Your task to perform on an android device: install app "Gmail" Image 0: 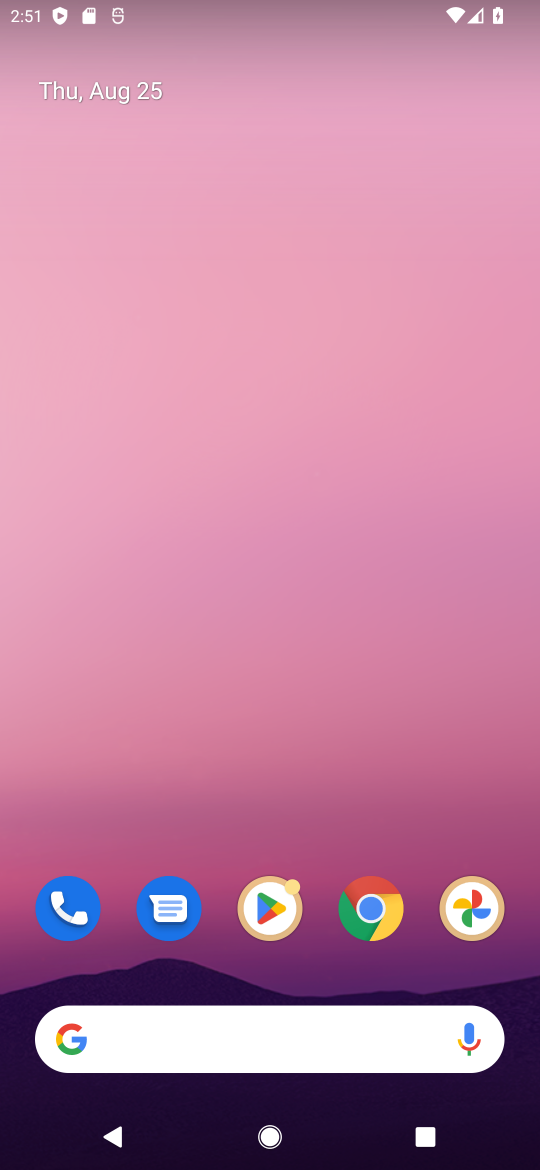
Step 0: click (258, 895)
Your task to perform on an android device: install app "Gmail" Image 1: 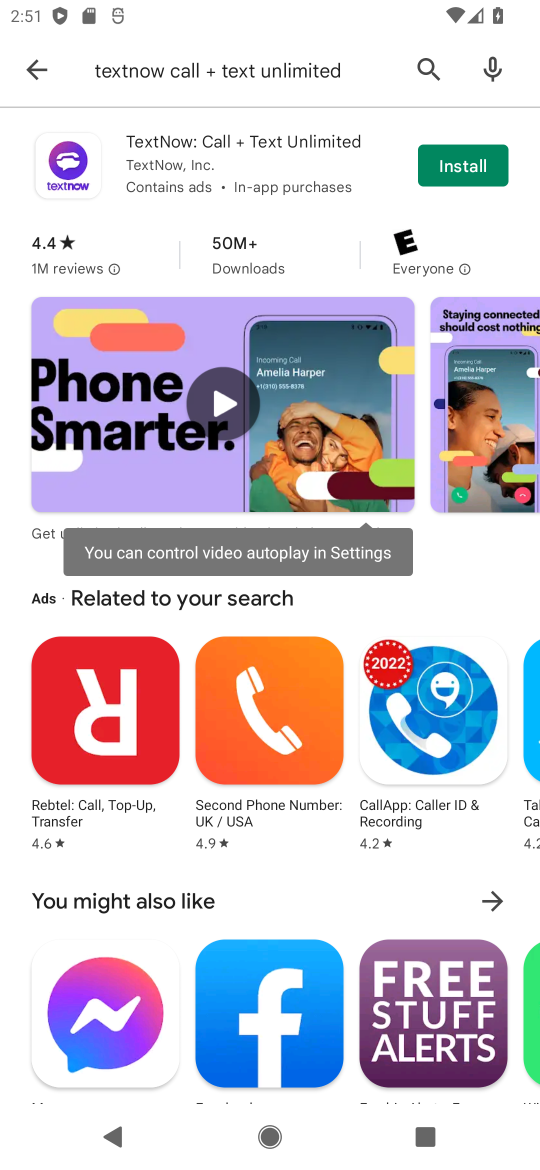
Step 1: click (437, 62)
Your task to perform on an android device: install app "Gmail" Image 2: 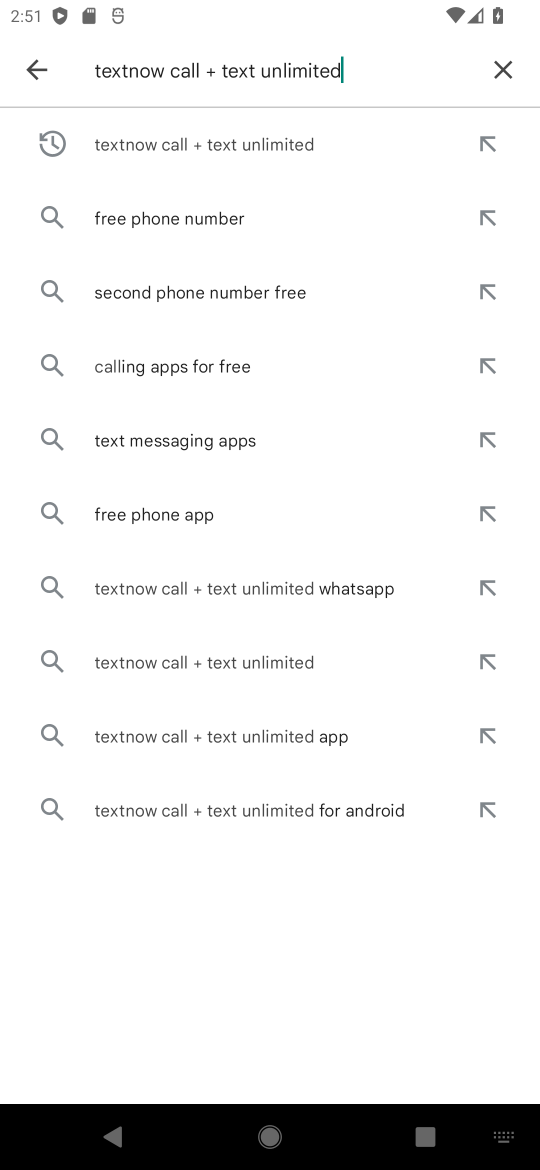
Step 2: click (505, 62)
Your task to perform on an android device: install app "Gmail" Image 3: 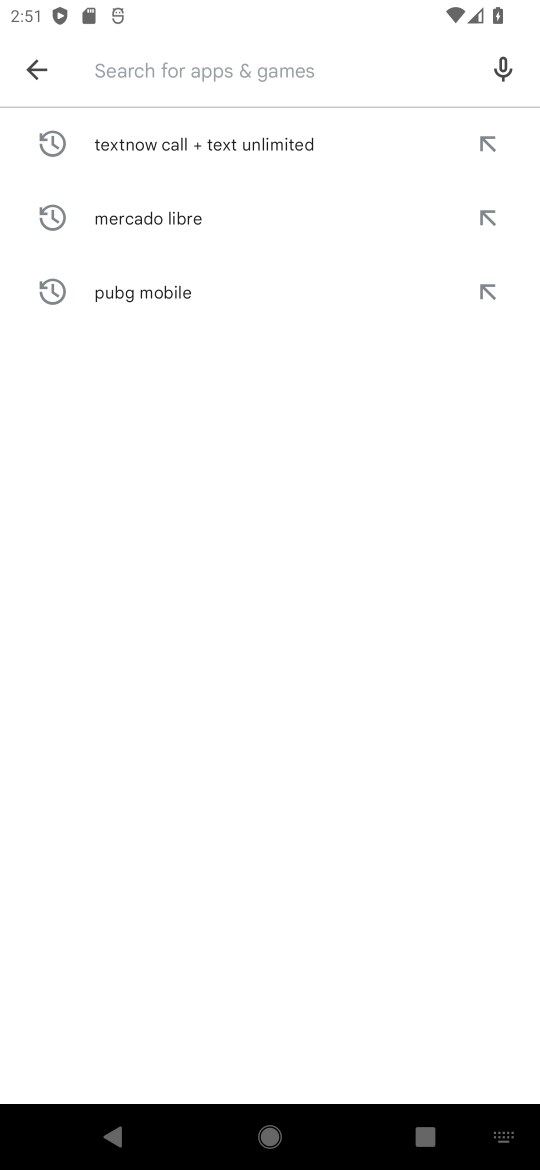
Step 3: type "Gmail"
Your task to perform on an android device: install app "Gmail" Image 4: 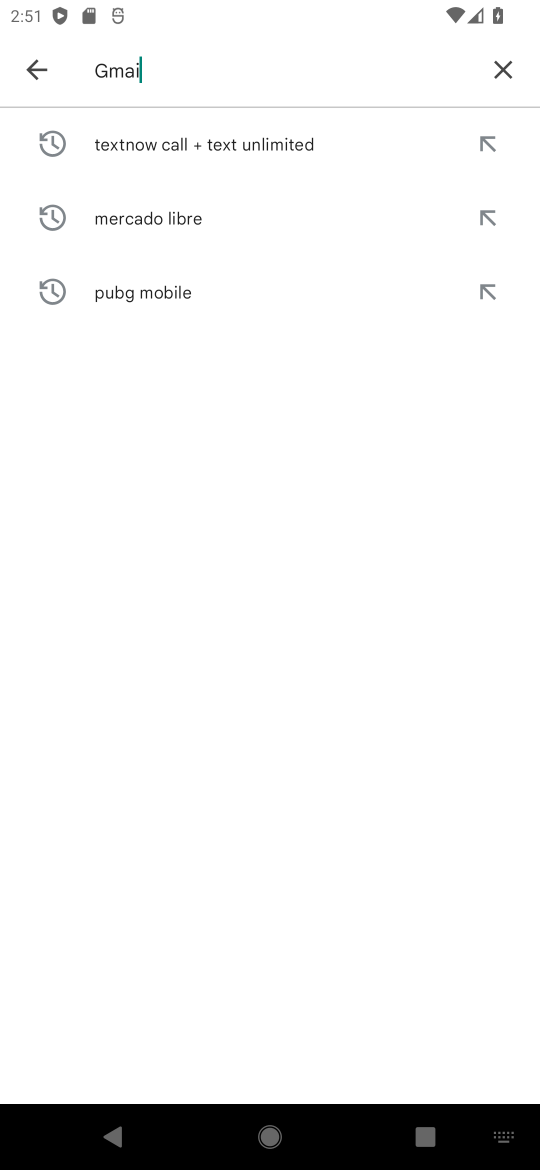
Step 4: type ""
Your task to perform on an android device: install app "Gmail" Image 5: 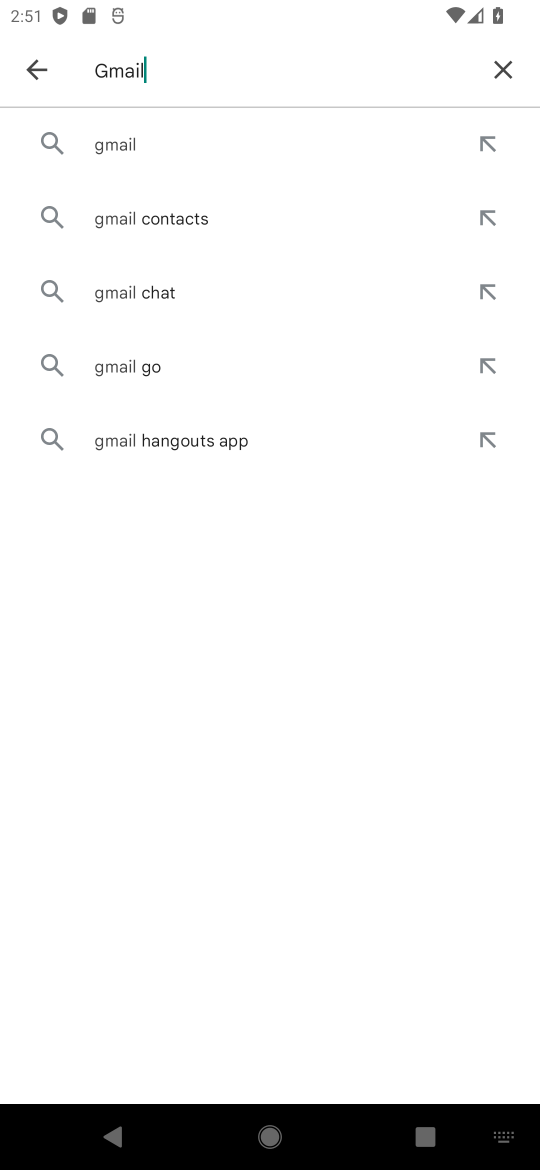
Step 5: click (198, 130)
Your task to perform on an android device: install app "Gmail" Image 6: 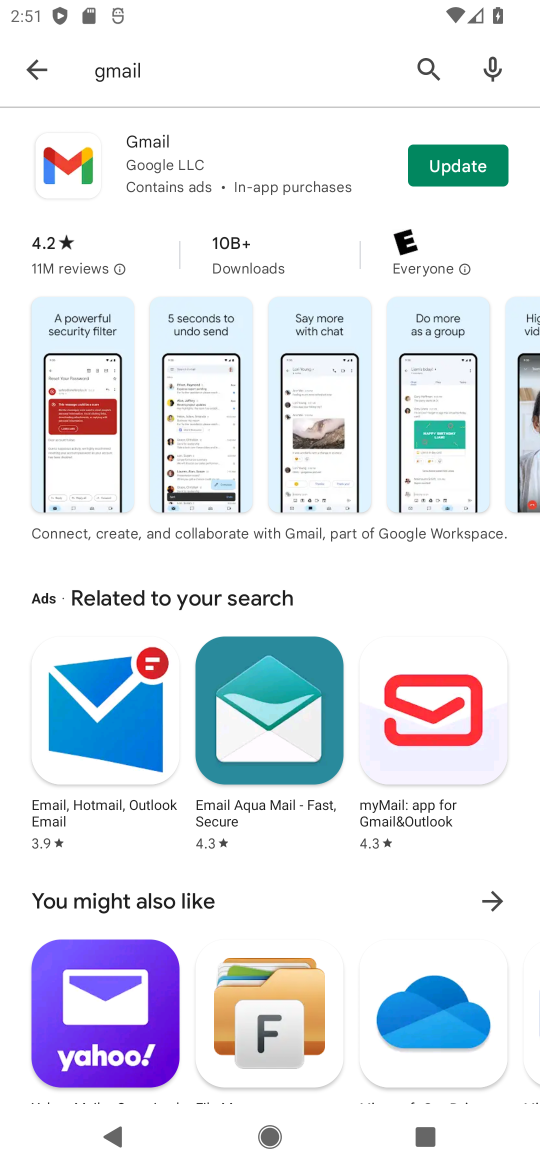
Step 6: click (264, 154)
Your task to perform on an android device: install app "Gmail" Image 7: 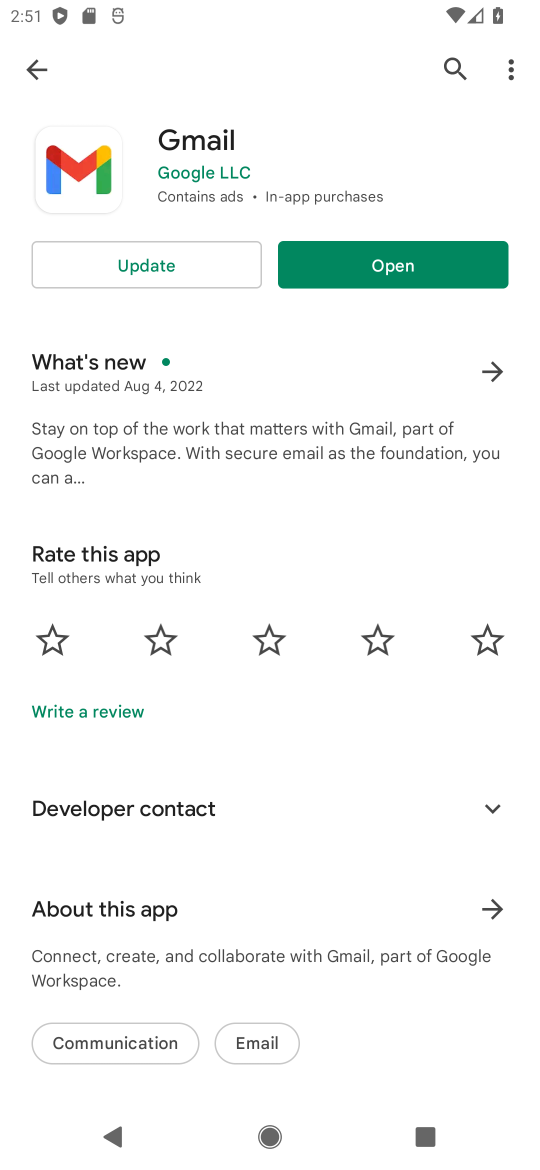
Step 7: task complete